Your task to perform on an android device: Open battery settings Image 0: 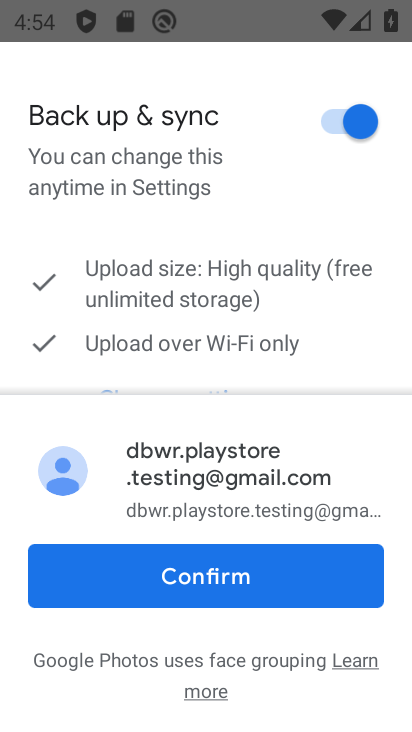
Step 0: press home button
Your task to perform on an android device: Open battery settings Image 1: 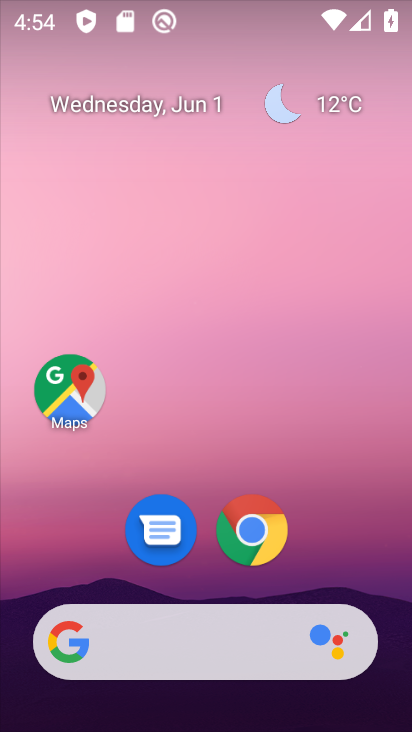
Step 1: drag from (207, 579) to (207, 260)
Your task to perform on an android device: Open battery settings Image 2: 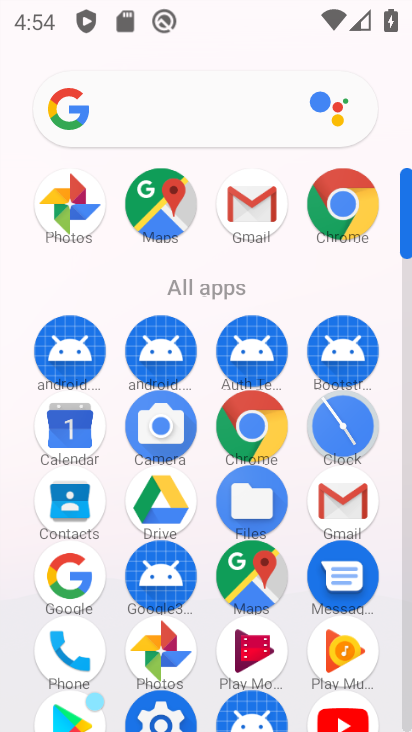
Step 2: click (157, 714)
Your task to perform on an android device: Open battery settings Image 3: 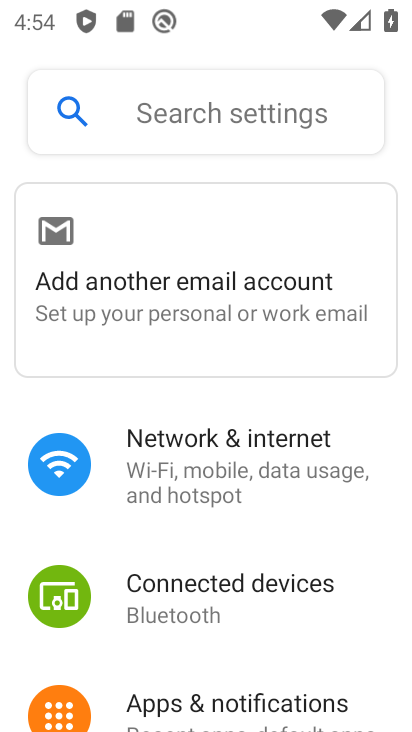
Step 3: drag from (214, 677) to (215, 363)
Your task to perform on an android device: Open battery settings Image 4: 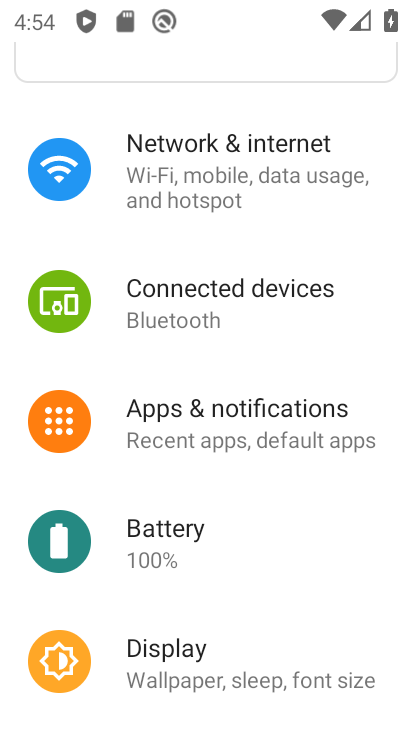
Step 4: click (175, 545)
Your task to perform on an android device: Open battery settings Image 5: 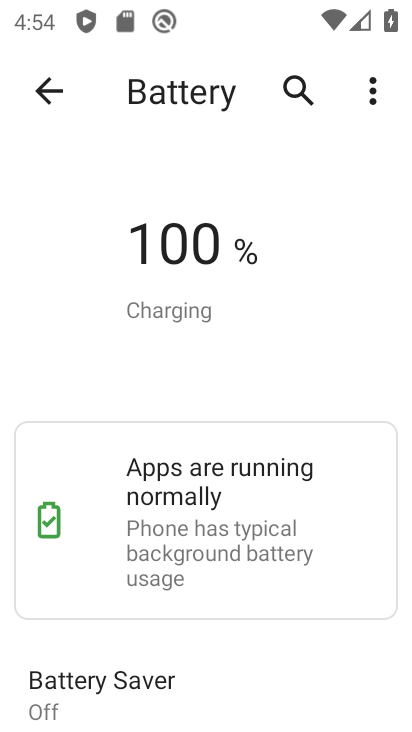
Step 5: task complete